Your task to perform on an android device: Open the calendar app, open the side menu, and click the "Day" option Image 0: 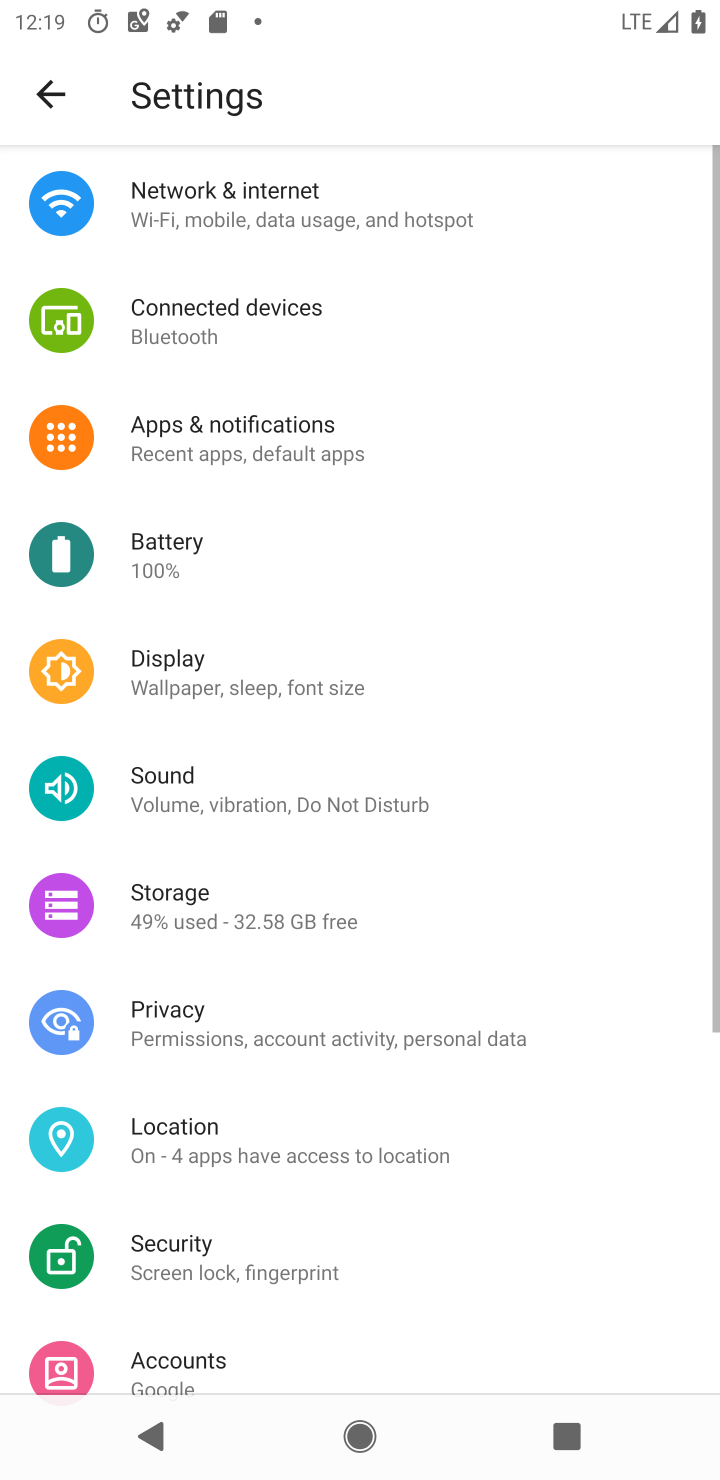
Step 0: press home button
Your task to perform on an android device: Open the calendar app, open the side menu, and click the "Day" option Image 1: 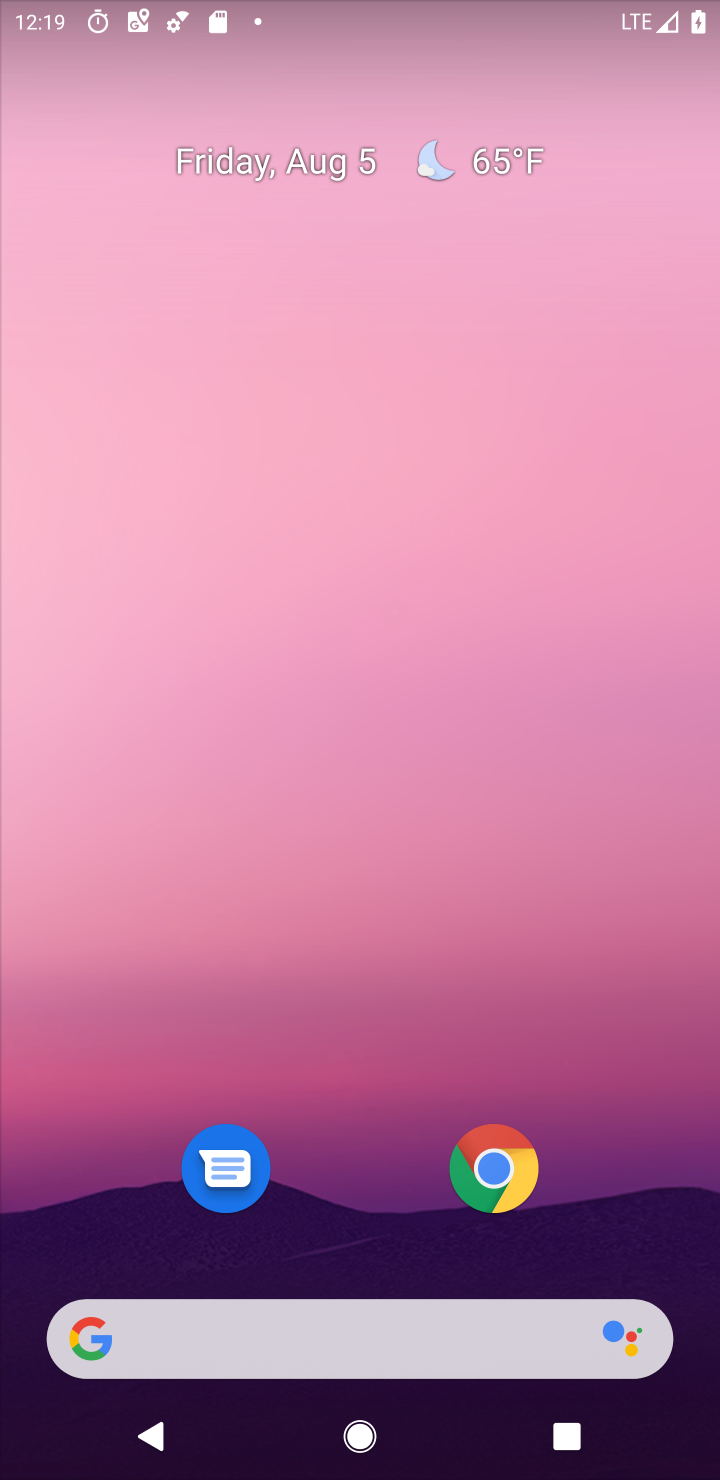
Step 1: drag from (316, 1238) to (390, 31)
Your task to perform on an android device: Open the calendar app, open the side menu, and click the "Day" option Image 2: 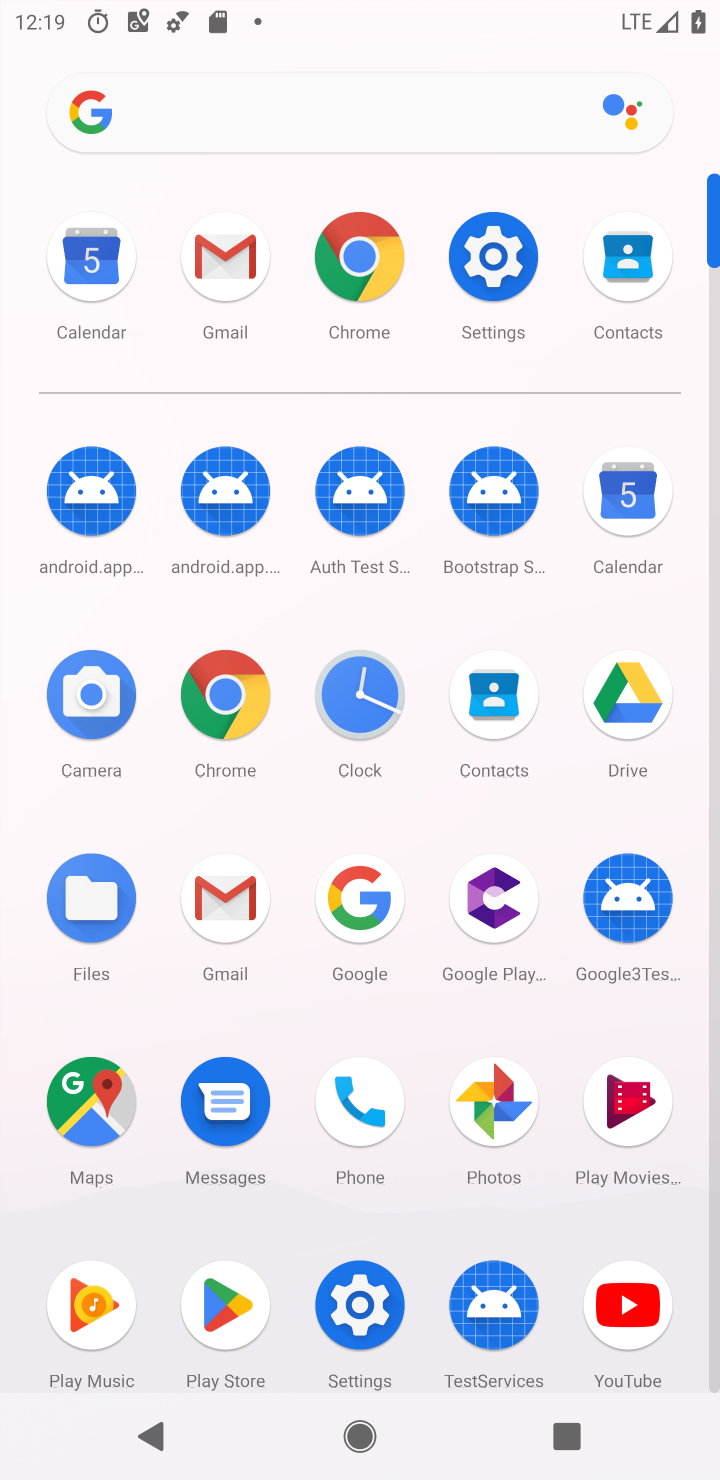
Step 2: click (634, 516)
Your task to perform on an android device: Open the calendar app, open the side menu, and click the "Day" option Image 3: 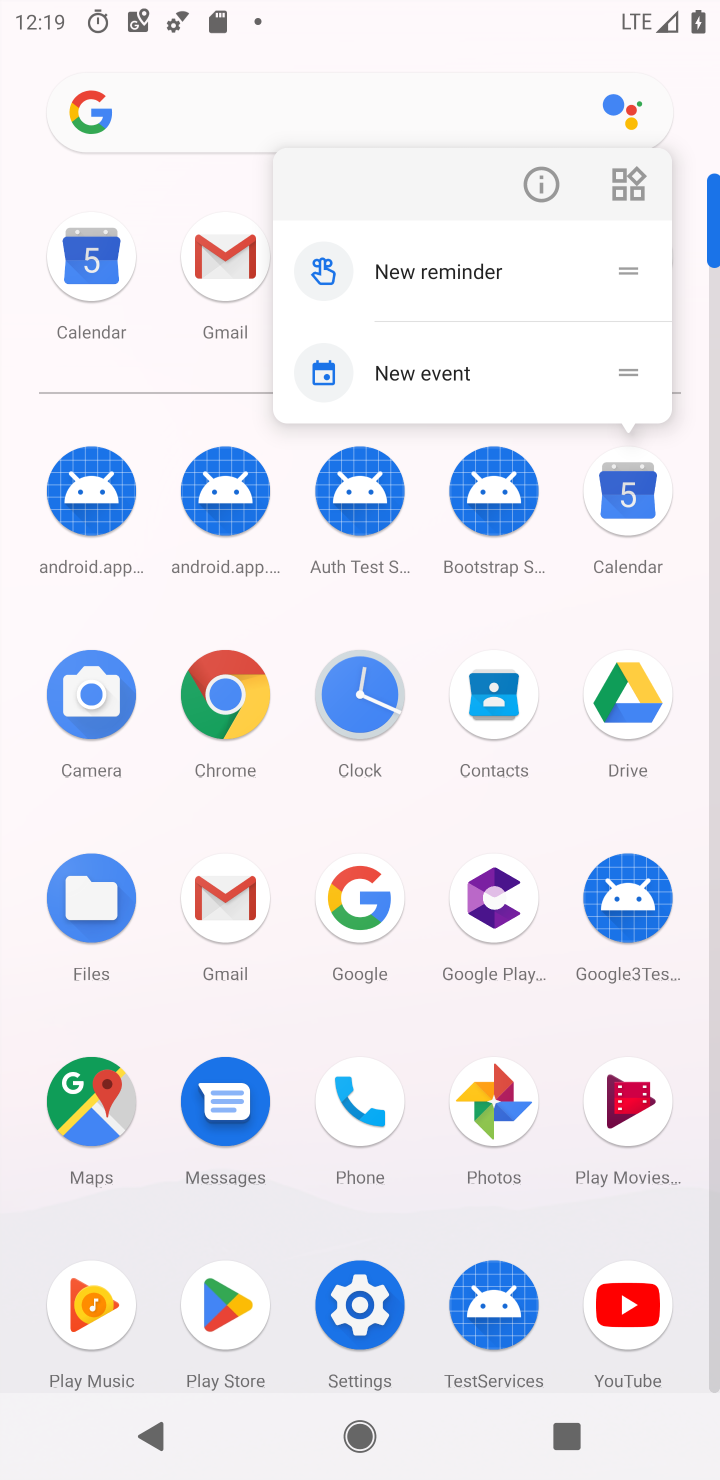
Step 3: click (620, 509)
Your task to perform on an android device: Open the calendar app, open the side menu, and click the "Day" option Image 4: 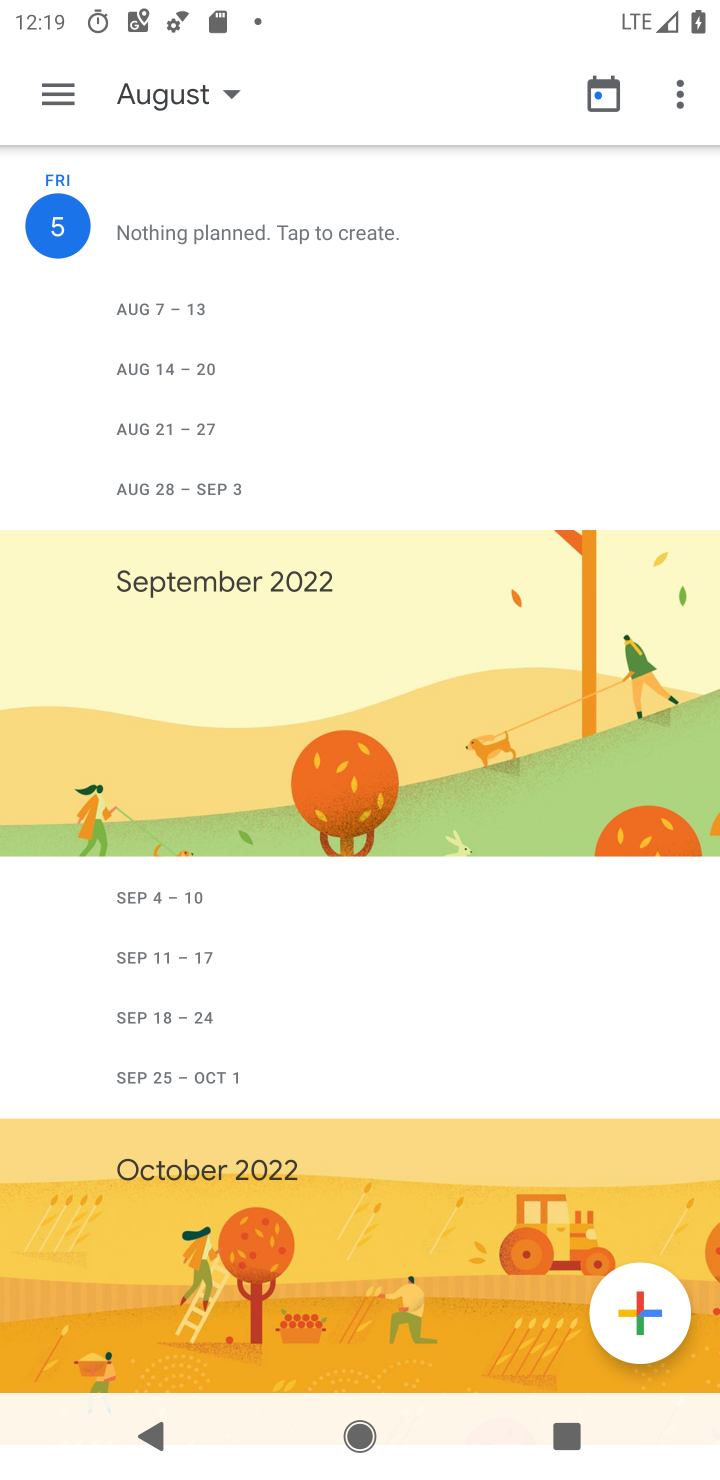
Step 4: click (49, 77)
Your task to perform on an android device: Open the calendar app, open the side menu, and click the "Day" option Image 5: 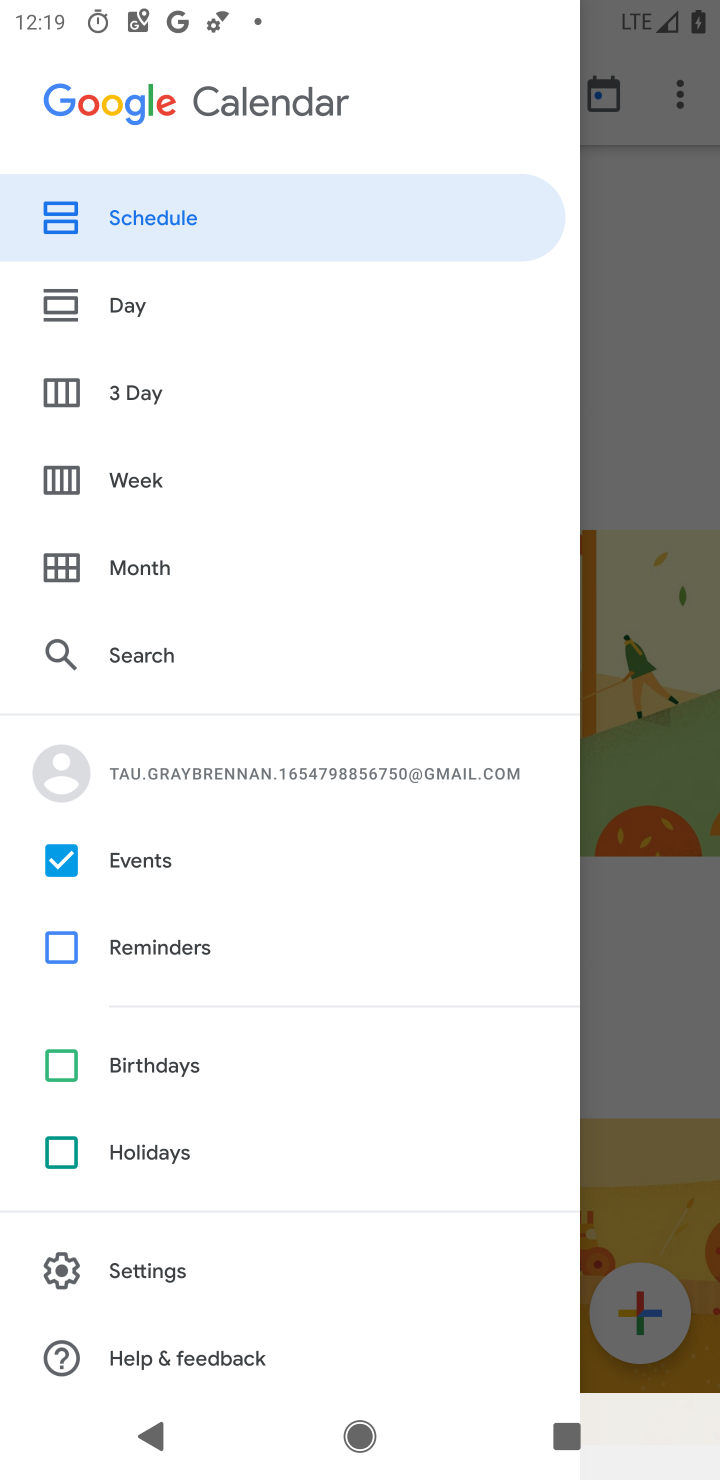
Step 5: click (119, 323)
Your task to perform on an android device: Open the calendar app, open the side menu, and click the "Day" option Image 6: 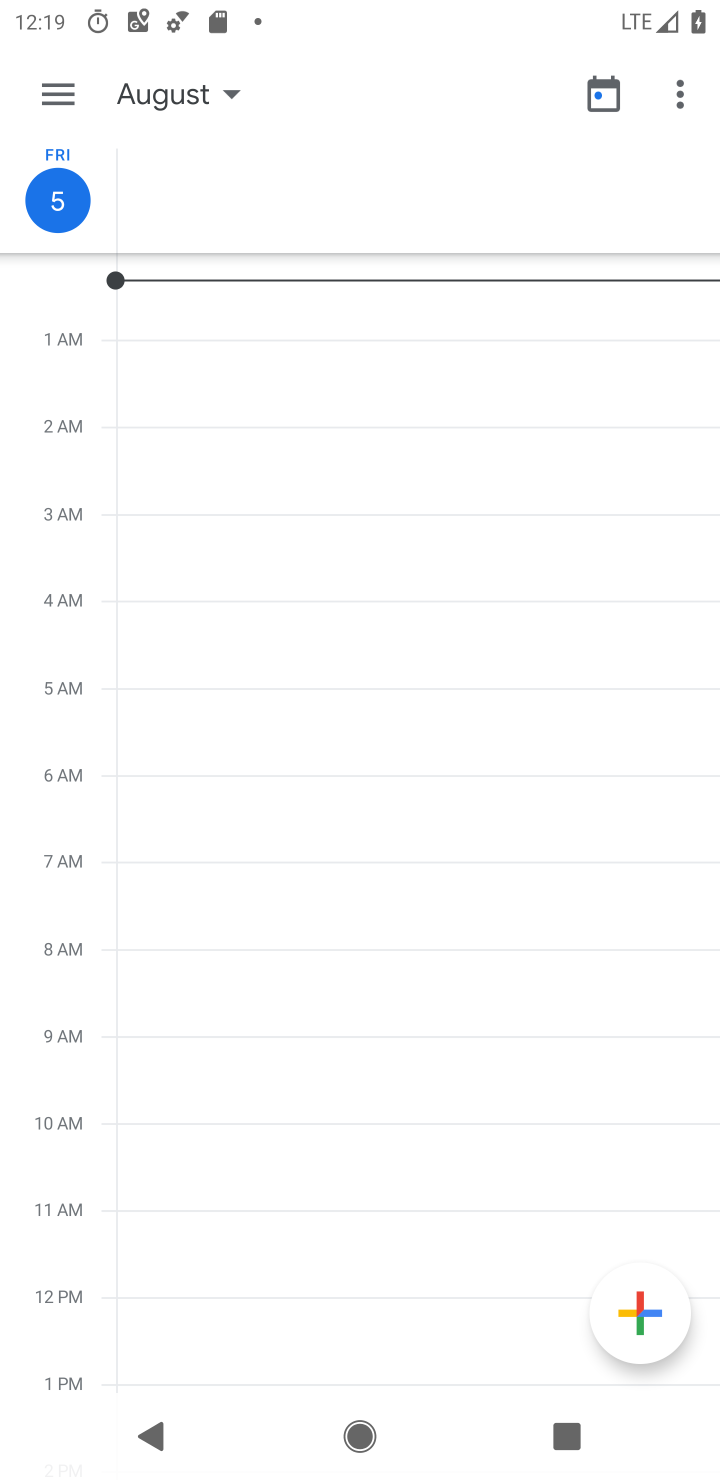
Step 6: task complete